Your task to perform on an android device: change notifications settings Image 0: 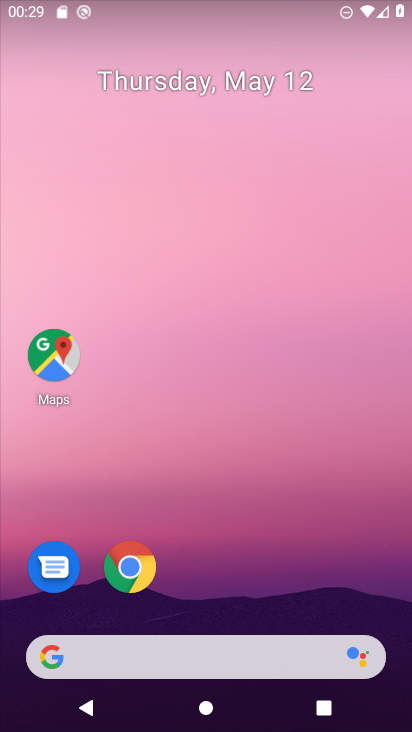
Step 0: drag from (282, 695) to (171, 61)
Your task to perform on an android device: change notifications settings Image 1: 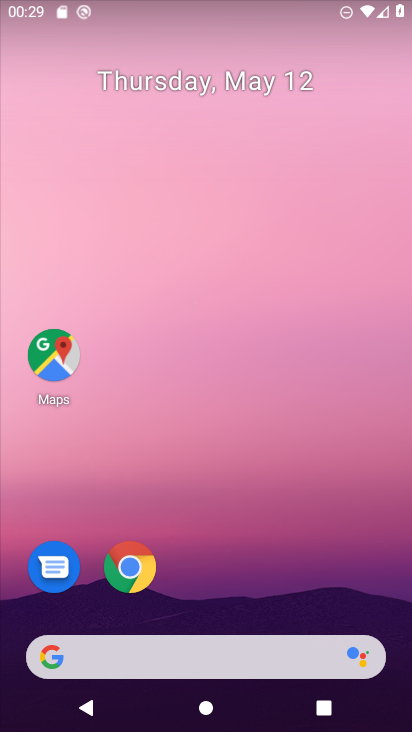
Step 1: drag from (254, 707) to (220, 156)
Your task to perform on an android device: change notifications settings Image 2: 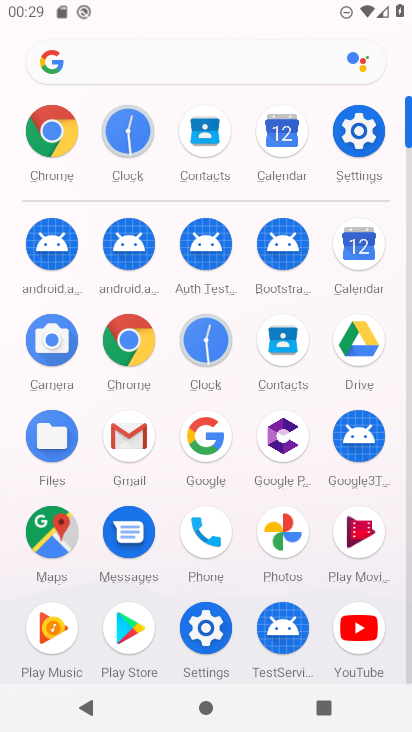
Step 2: click (351, 129)
Your task to perform on an android device: change notifications settings Image 3: 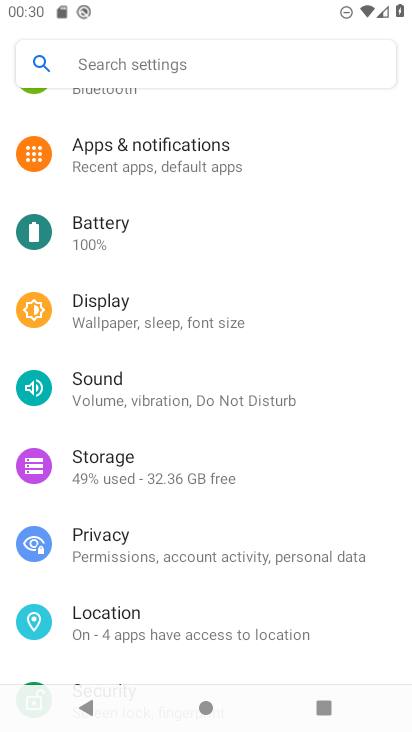
Step 3: click (244, 163)
Your task to perform on an android device: change notifications settings Image 4: 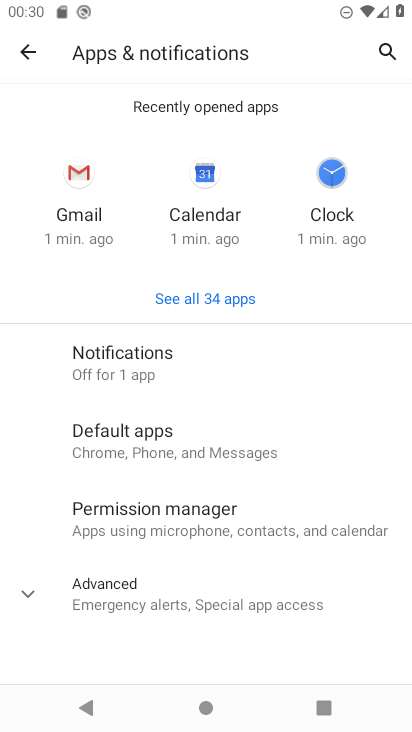
Step 4: click (186, 369)
Your task to perform on an android device: change notifications settings Image 5: 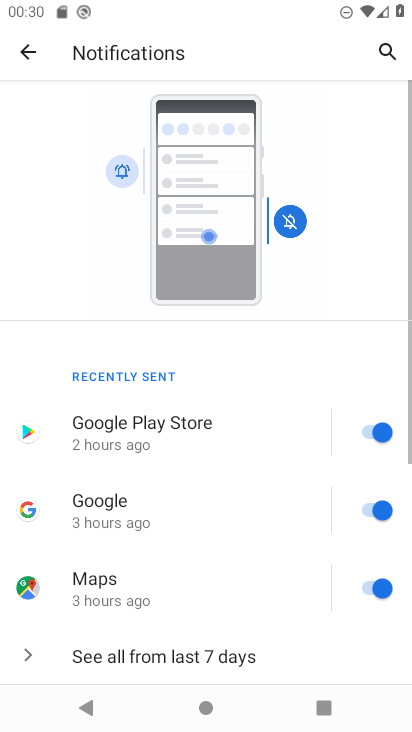
Step 5: click (383, 426)
Your task to perform on an android device: change notifications settings Image 6: 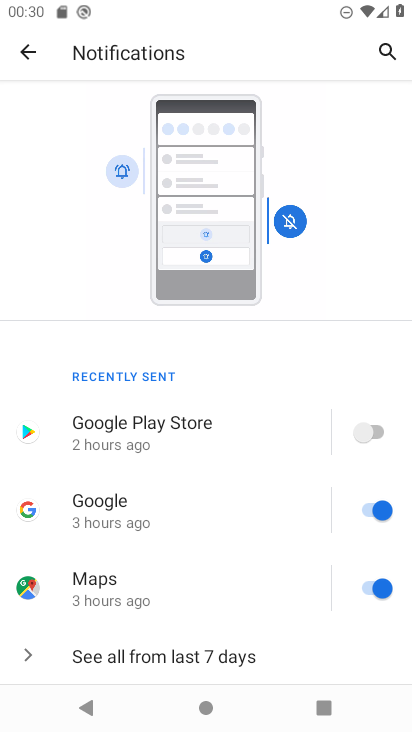
Step 6: task complete